Your task to perform on an android device: turn on notifications settings in the gmail app Image 0: 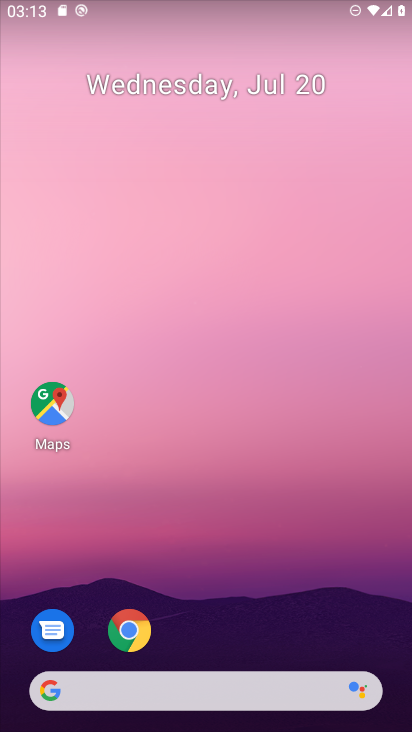
Step 0: drag from (363, 622) to (391, 150)
Your task to perform on an android device: turn on notifications settings in the gmail app Image 1: 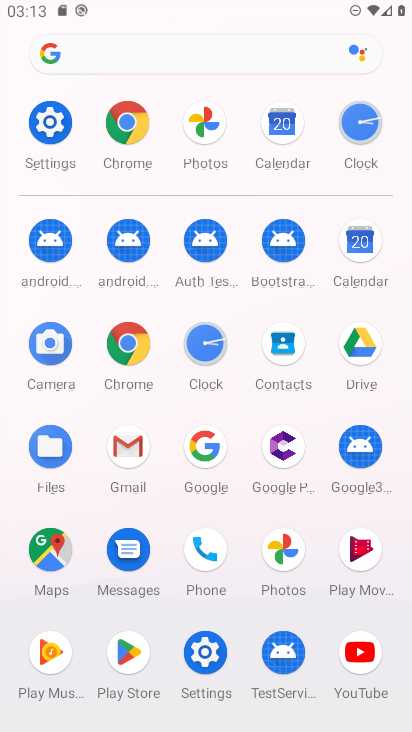
Step 1: click (134, 454)
Your task to perform on an android device: turn on notifications settings in the gmail app Image 2: 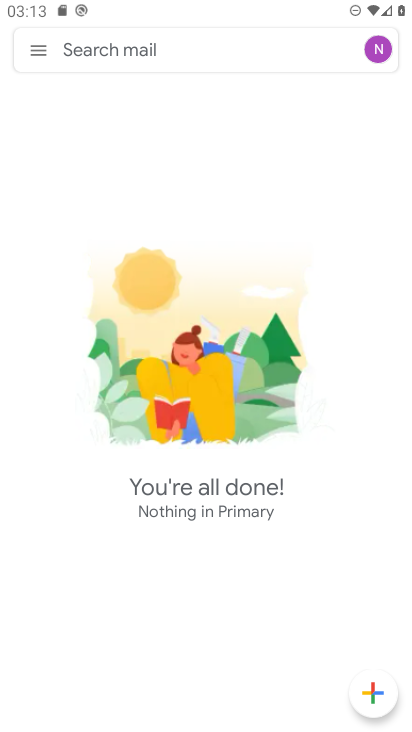
Step 2: click (39, 50)
Your task to perform on an android device: turn on notifications settings in the gmail app Image 3: 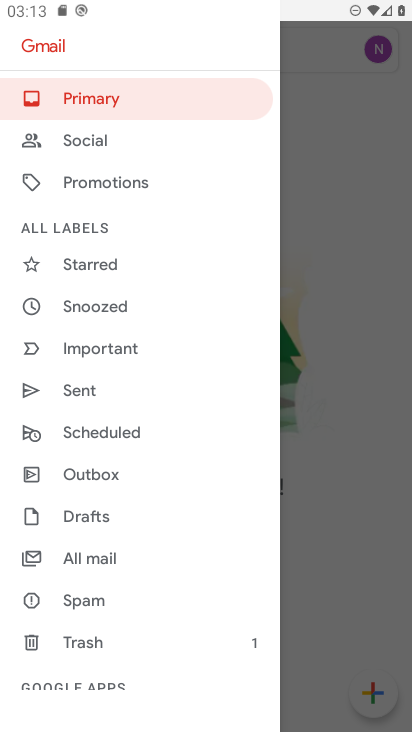
Step 3: drag from (193, 361) to (198, 290)
Your task to perform on an android device: turn on notifications settings in the gmail app Image 4: 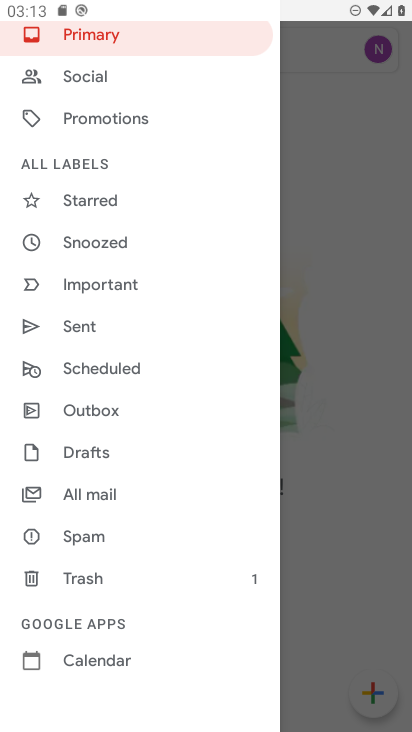
Step 4: drag from (184, 425) to (191, 350)
Your task to perform on an android device: turn on notifications settings in the gmail app Image 5: 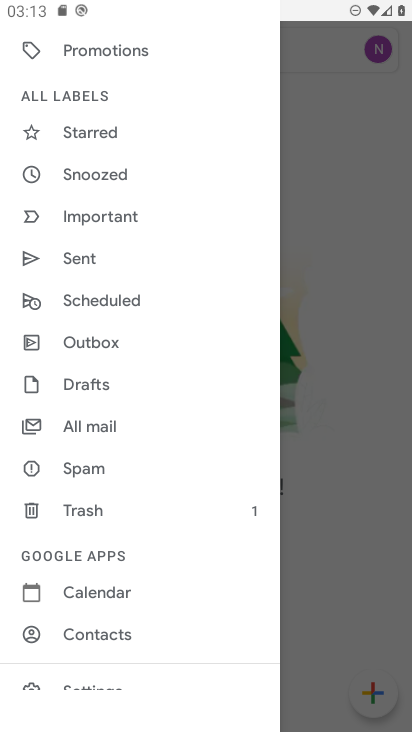
Step 5: drag from (184, 470) to (186, 351)
Your task to perform on an android device: turn on notifications settings in the gmail app Image 6: 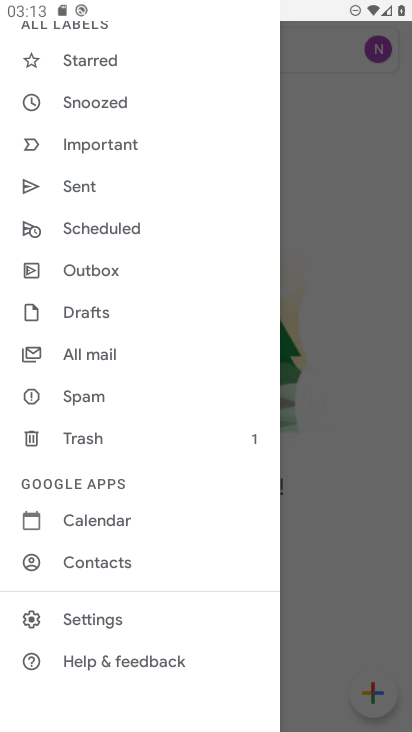
Step 6: click (134, 617)
Your task to perform on an android device: turn on notifications settings in the gmail app Image 7: 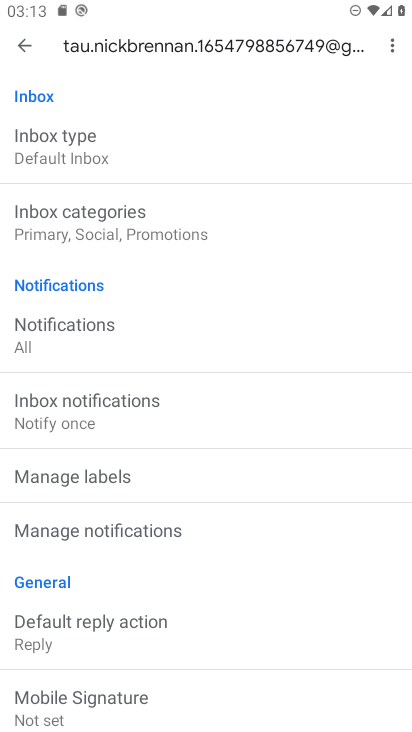
Step 7: drag from (289, 568) to (301, 499)
Your task to perform on an android device: turn on notifications settings in the gmail app Image 8: 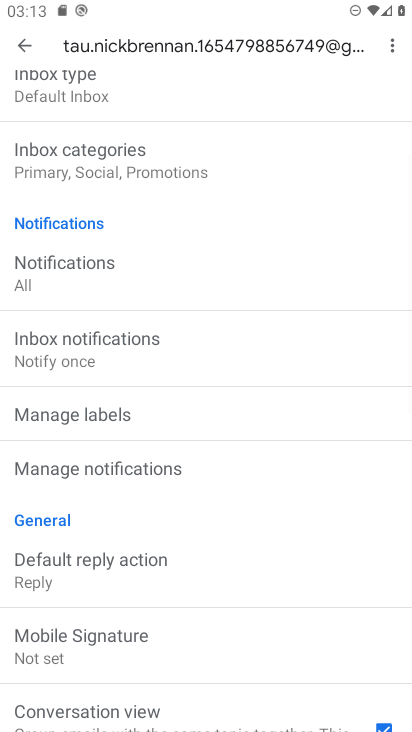
Step 8: drag from (317, 597) to (324, 528)
Your task to perform on an android device: turn on notifications settings in the gmail app Image 9: 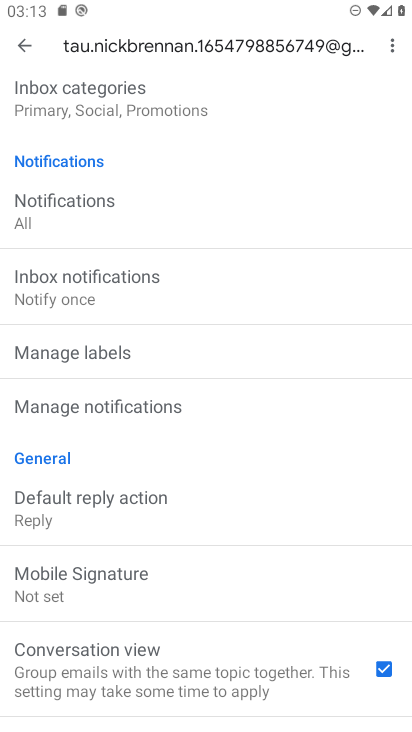
Step 9: drag from (309, 592) to (311, 511)
Your task to perform on an android device: turn on notifications settings in the gmail app Image 10: 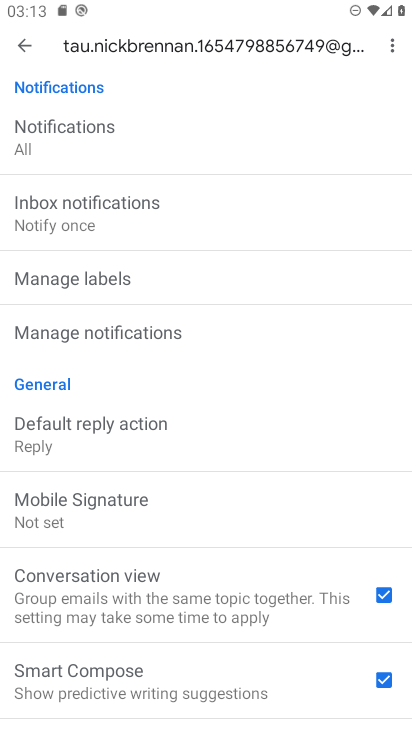
Step 10: drag from (318, 629) to (315, 520)
Your task to perform on an android device: turn on notifications settings in the gmail app Image 11: 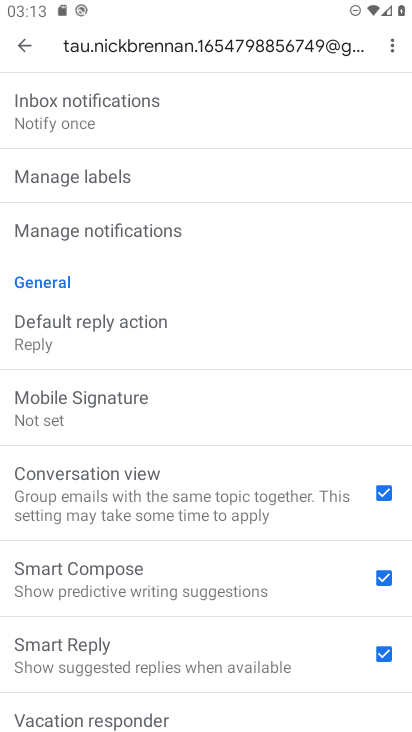
Step 11: drag from (295, 338) to (291, 400)
Your task to perform on an android device: turn on notifications settings in the gmail app Image 12: 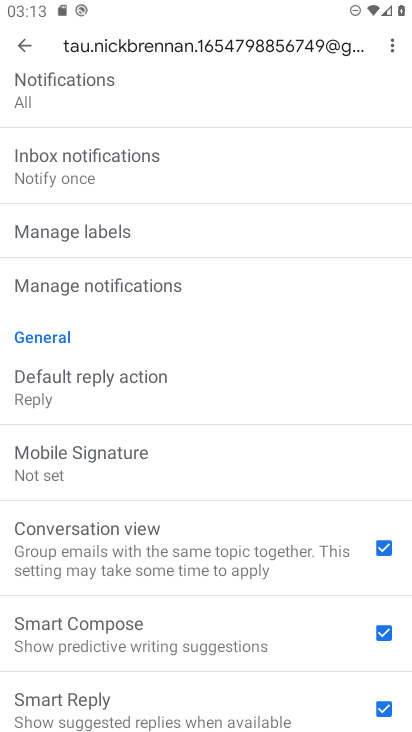
Step 12: drag from (301, 281) to (303, 394)
Your task to perform on an android device: turn on notifications settings in the gmail app Image 13: 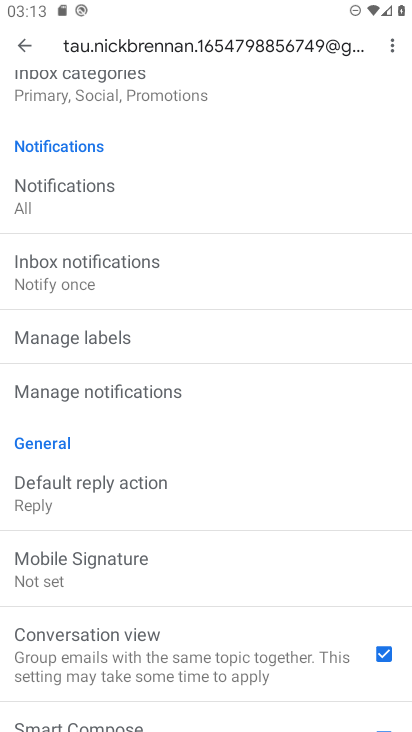
Step 13: drag from (279, 280) to (273, 405)
Your task to perform on an android device: turn on notifications settings in the gmail app Image 14: 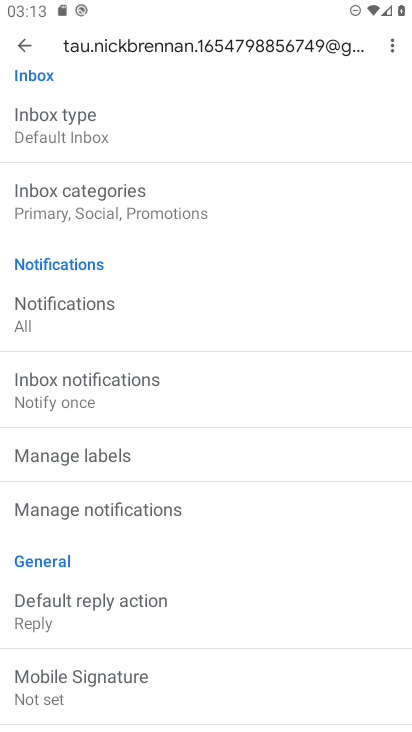
Step 14: click (208, 512)
Your task to perform on an android device: turn on notifications settings in the gmail app Image 15: 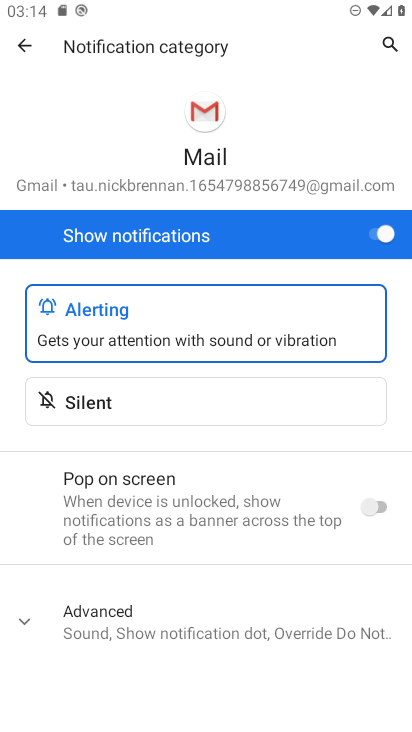
Step 15: task complete